Your task to perform on an android device: search for starred emails in the gmail app Image 0: 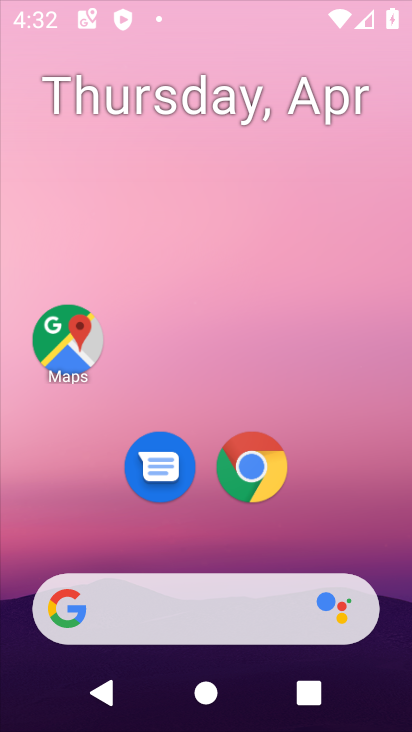
Step 0: click (244, 234)
Your task to perform on an android device: search for starred emails in the gmail app Image 1: 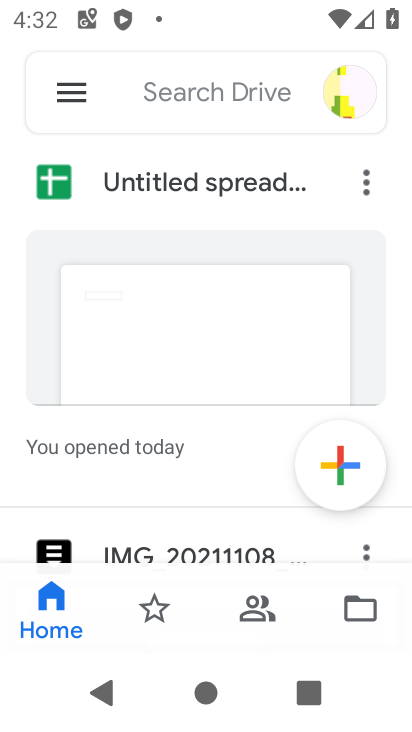
Step 1: press home button
Your task to perform on an android device: search for starred emails in the gmail app Image 2: 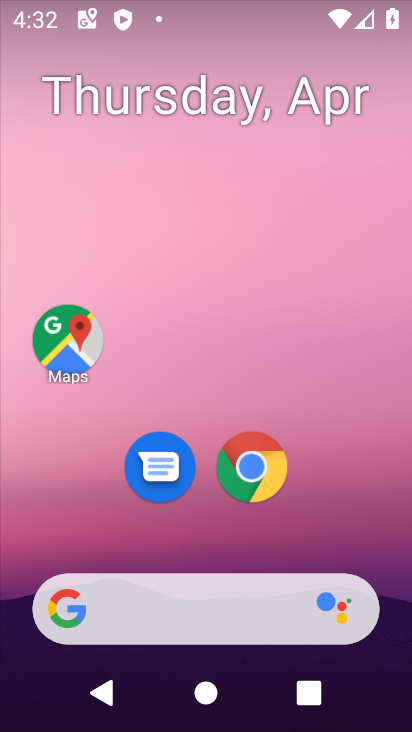
Step 2: drag from (193, 549) to (205, 125)
Your task to perform on an android device: search for starred emails in the gmail app Image 3: 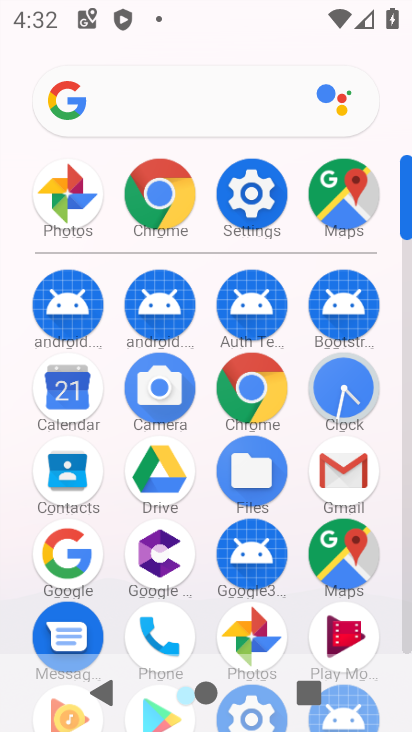
Step 3: click (351, 477)
Your task to perform on an android device: search for starred emails in the gmail app Image 4: 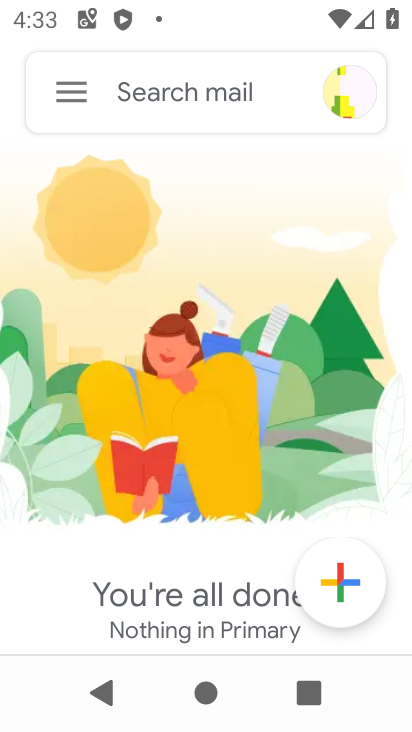
Step 4: click (59, 86)
Your task to perform on an android device: search for starred emails in the gmail app Image 5: 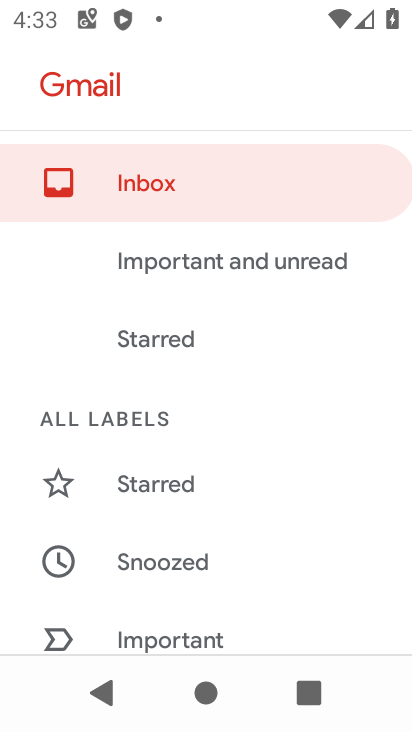
Step 5: click (124, 487)
Your task to perform on an android device: search for starred emails in the gmail app Image 6: 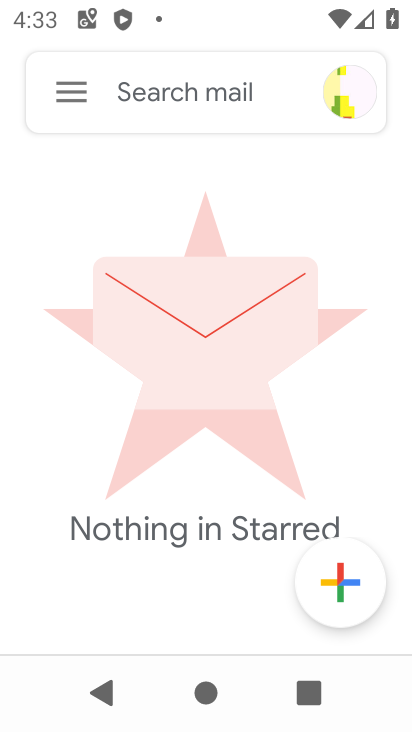
Step 6: task complete